Your task to perform on an android device: change the clock display to analog Image 0: 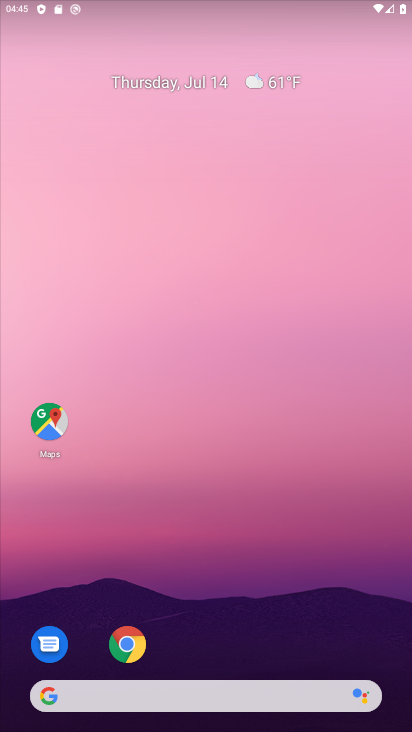
Step 0: press home button
Your task to perform on an android device: change the clock display to analog Image 1: 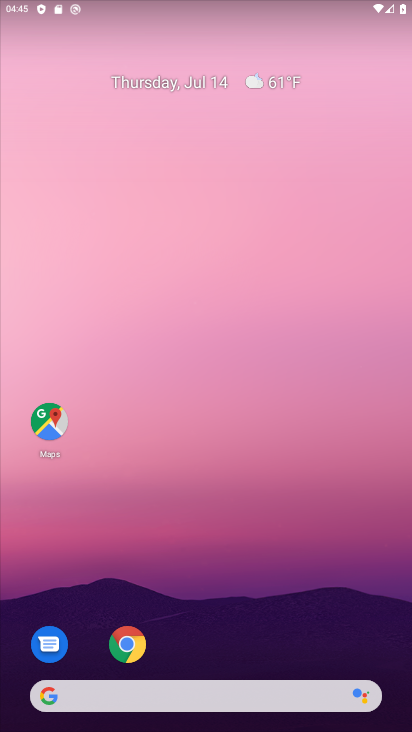
Step 1: drag from (290, 594) to (230, 3)
Your task to perform on an android device: change the clock display to analog Image 2: 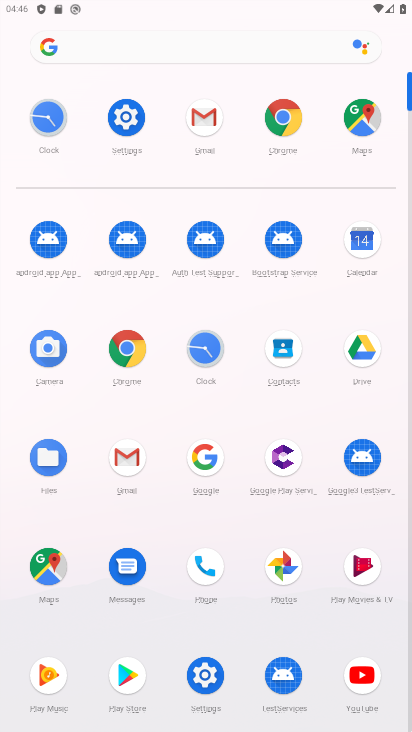
Step 2: click (205, 348)
Your task to perform on an android device: change the clock display to analog Image 3: 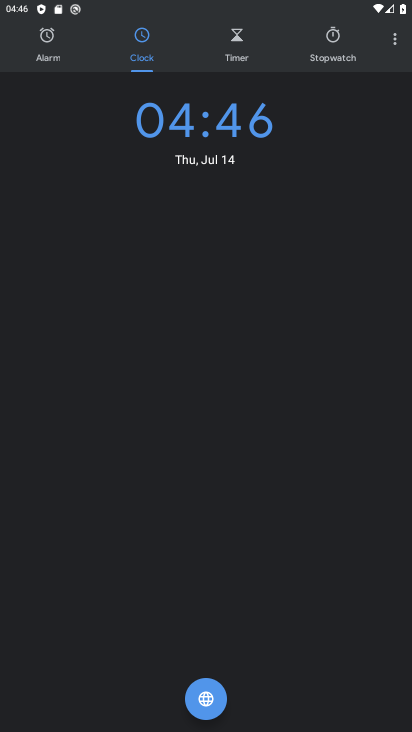
Step 3: click (386, 45)
Your task to perform on an android device: change the clock display to analog Image 4: 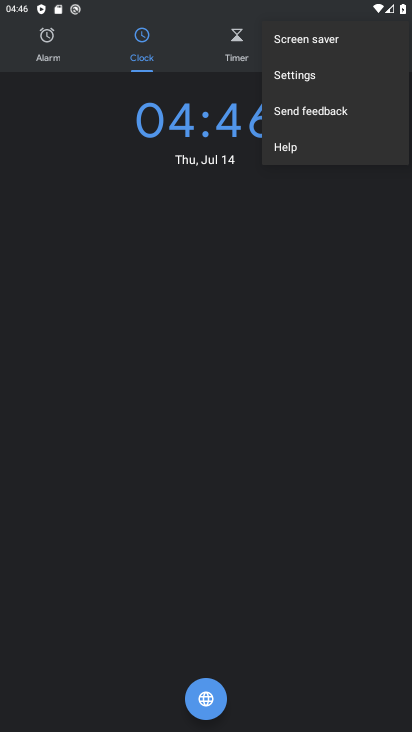
Step 4: click (275, 76)
Your task to perform on an android device: change the clock display to analog Image 5: 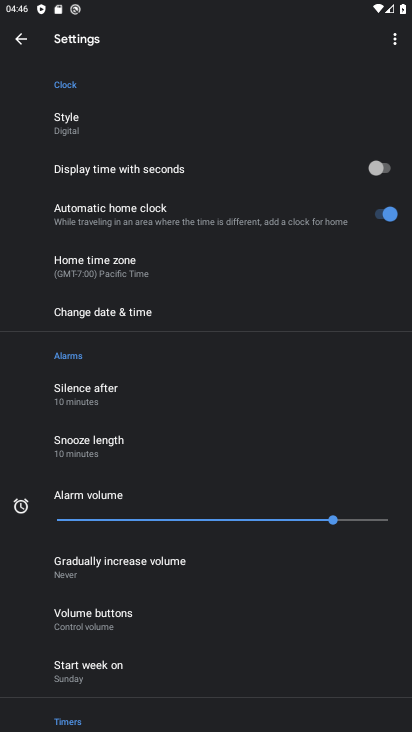
Step 5: click (61, 129)
Your task to perform on an android device: change the clock display to analog Image 6: 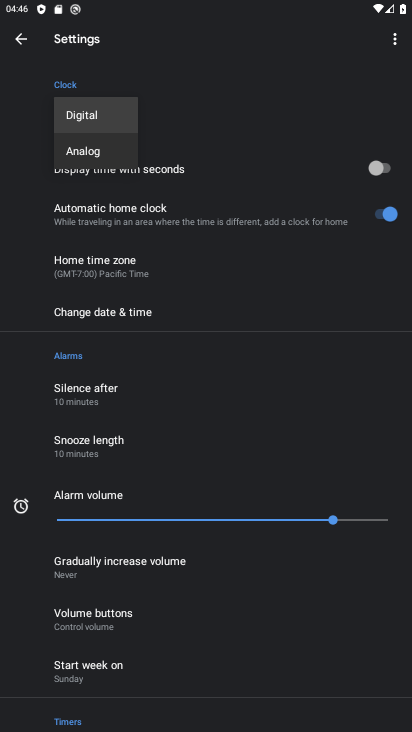
Step 6: click (80, 157)
Your task to perform on an android device: change the clock display to analog Image 7: 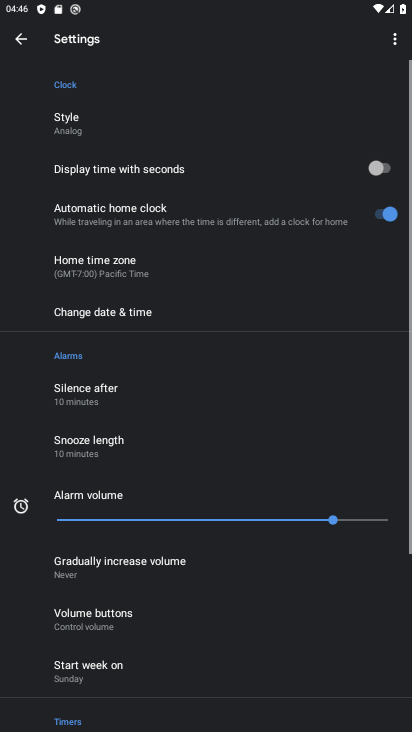
Step 7: task complete